Your task to perform on an android device: check google app version Image 0: 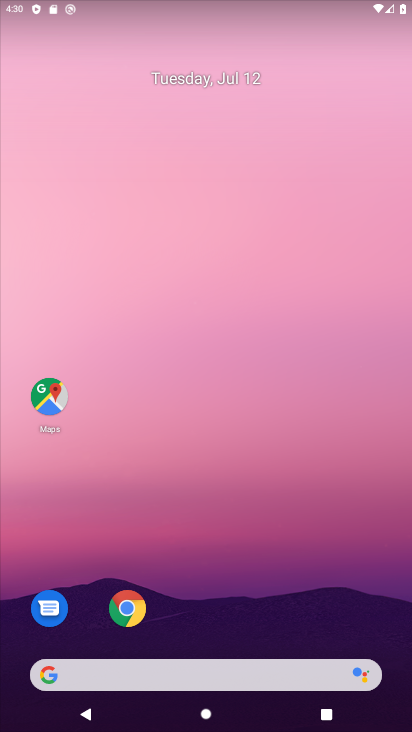
Step 0: drag from (206, 618) to (158, 182)
Your task to perform on an android device: check google app version Image 1: 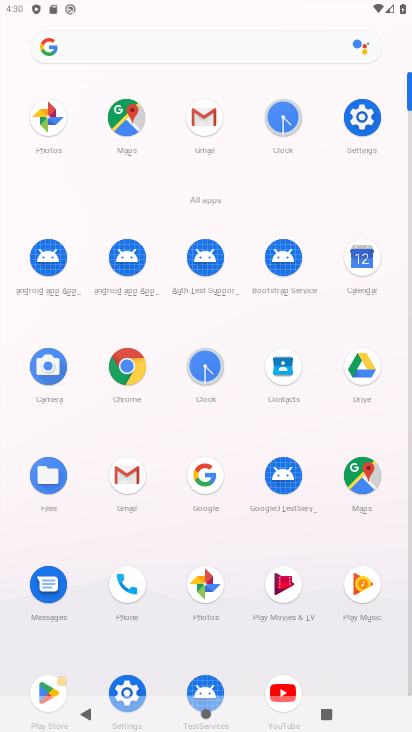
Step 1: click (212, 484)
Your task to perform on an android device: check google app version Image 2: 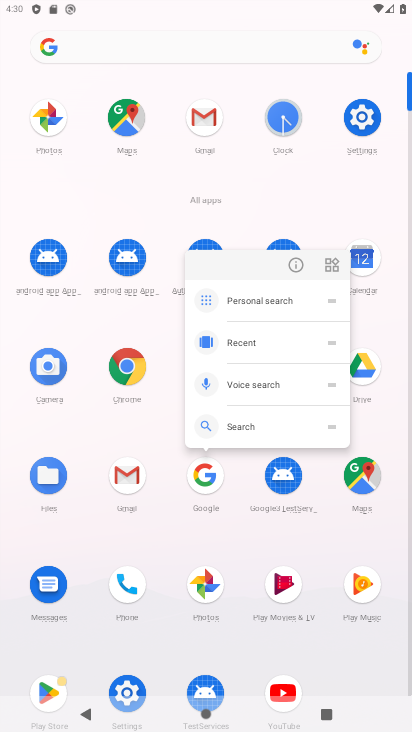
Step 2: click (293, 272)
Your task to perform on an android device: check google app version Image 3: 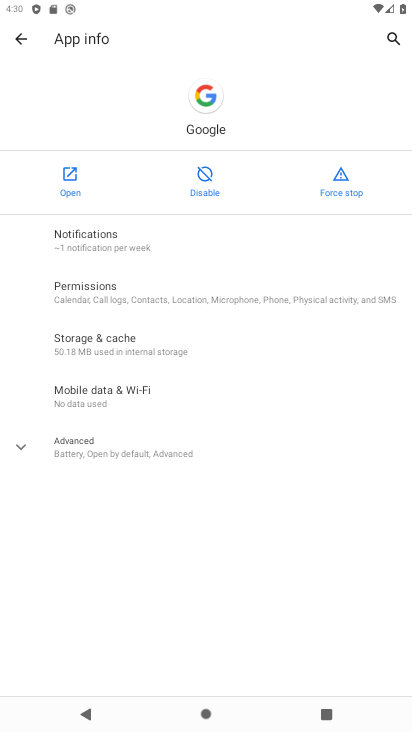
Step 3: click (112, 432)
Your task to perform on an android device: check google app version Image 4: 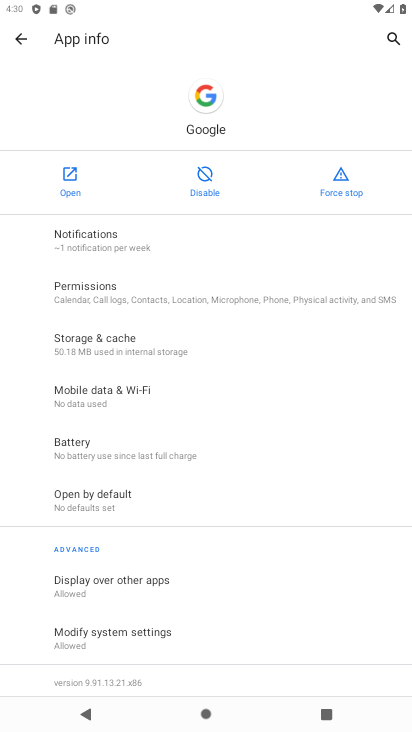
Step 4: task complete